Your task to perform on an android device: Go to location settings Image 0: 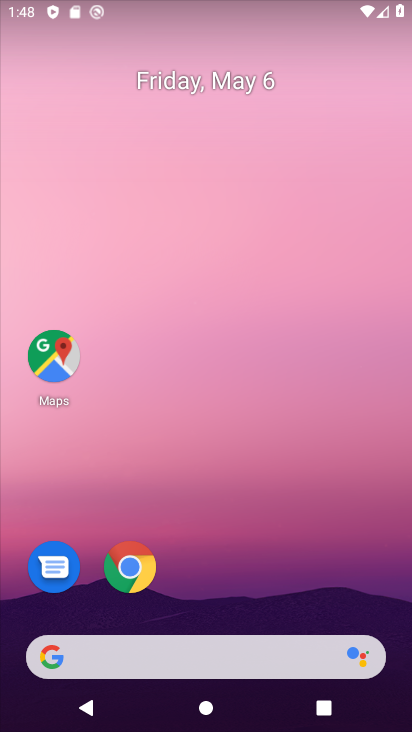
Step 0: drag from (389, 626) to (316, 29)
Your task to perform on an android device: Go to location settings Image 1: 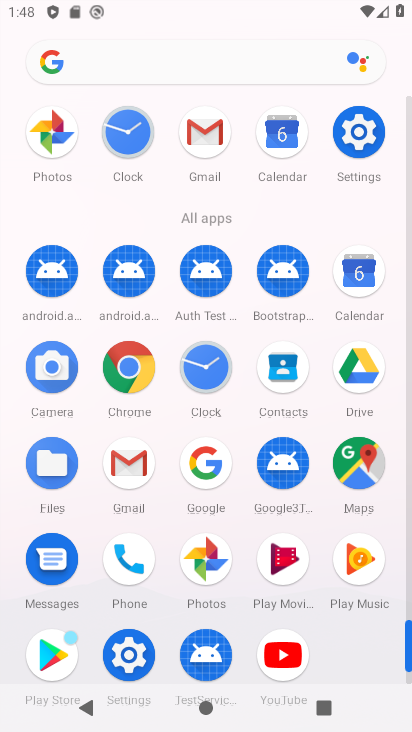
Step 1: click (130, 653)
Your task to perform on an android device: Go to location settings Image 2: 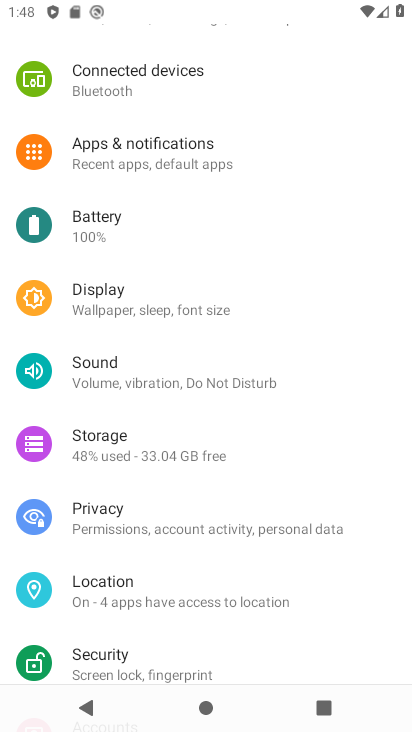
Step 2: click (120, 587)
Your task to perform on an android device: Go to location settings Image 3: 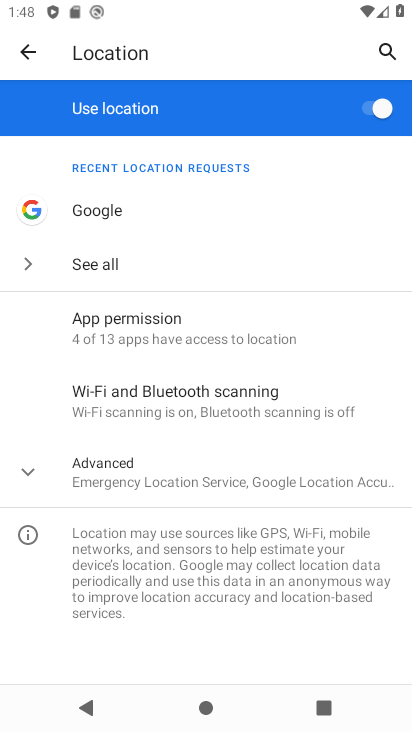
Step 3: click (26, 469)
Your task to perform on an android device: Go to location settings Image 4: 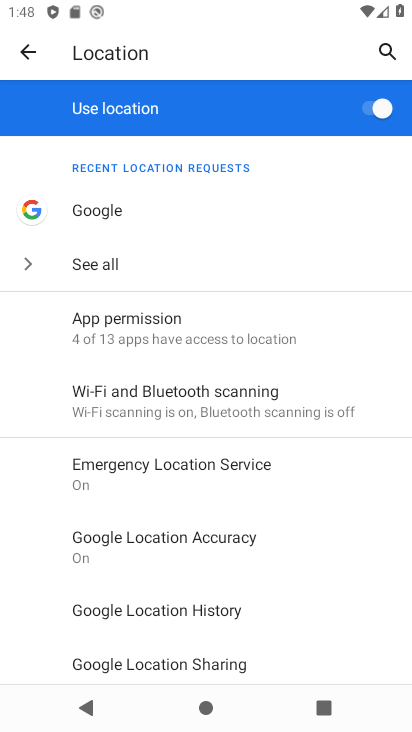
Step 4: task complete